Your task to perform on an android device: empty trash in the gmail app Image 0: 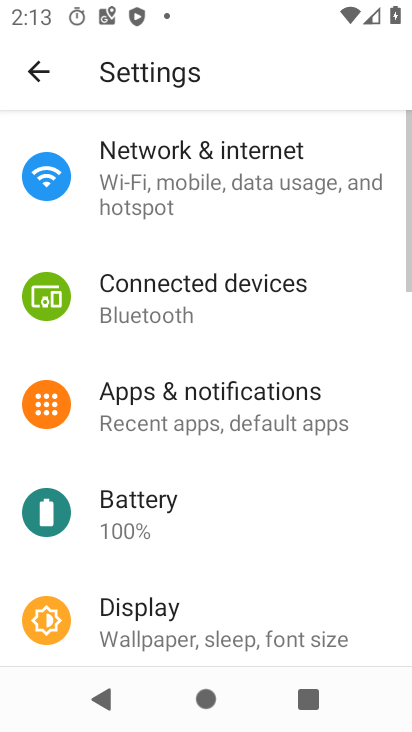
Step 0: press home button
Your task to perform on an android device: empty trash in the gmail app Image 1: 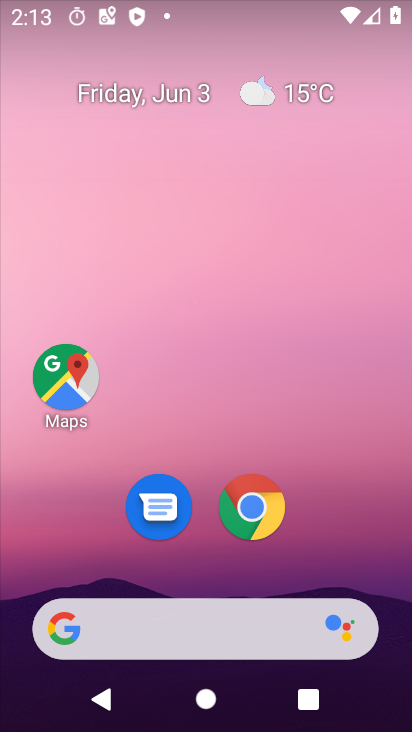
Step 1: drag from (392, 631) to (345, 0)
Your task to perform on an android device: empty trash in the gmail app Image 2: 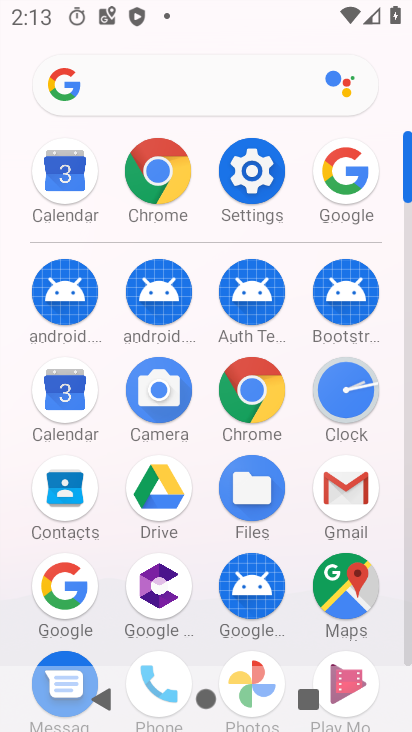
Step 2: click (247, 656)
Your task to perform on an android device: empty trash in the gmail app Image 3: 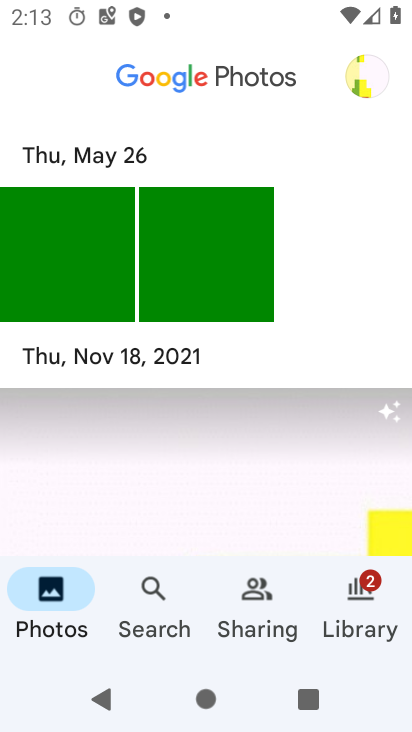
Step 3: click (352, 602)
Your task to perform on an android device: empty trash in the gmail app Image 4: 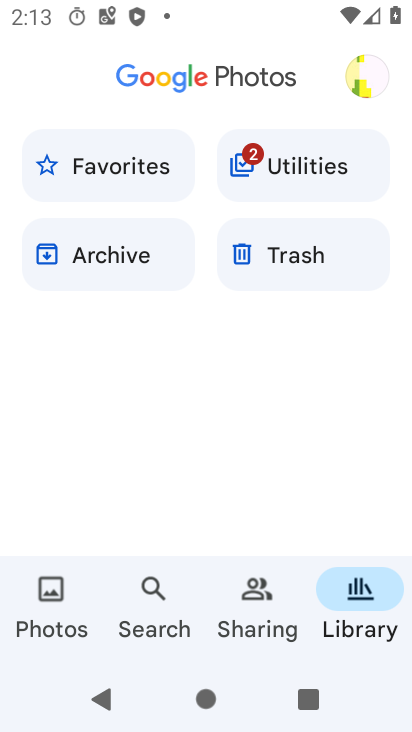
Step 4: click (317, 245)
Your task to perform on an android device: empty trash in the gmail app Image 5: 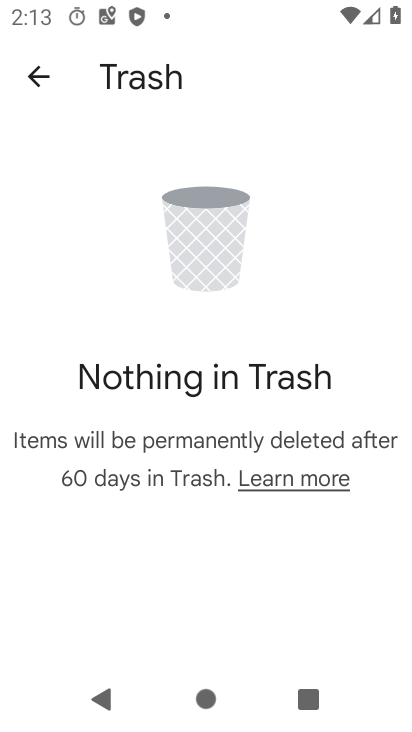
Step 5: task complete